Your task to perform on an android device: Go to internet settings Image 0: 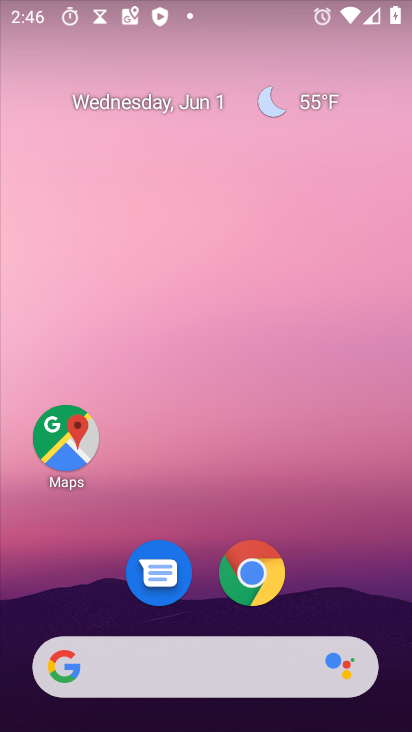
Step 0: drag from (342, 512) to (257, 41)
Your task to perform on an android device: Go to internet settings Image 1: 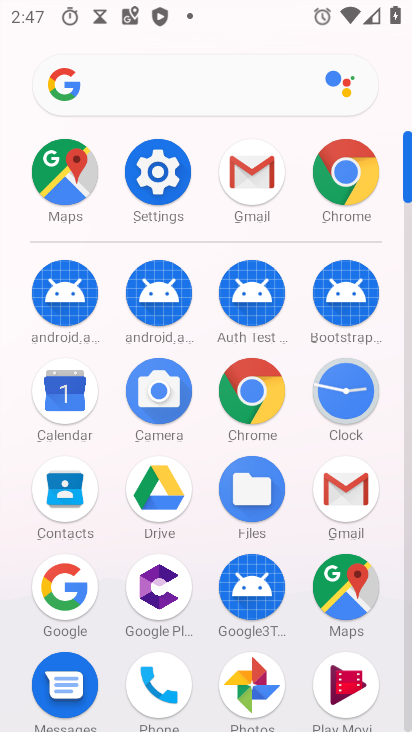
Step 1: click (133, 174)
Your task to perform on an android device: Go to internet settings Image 2: 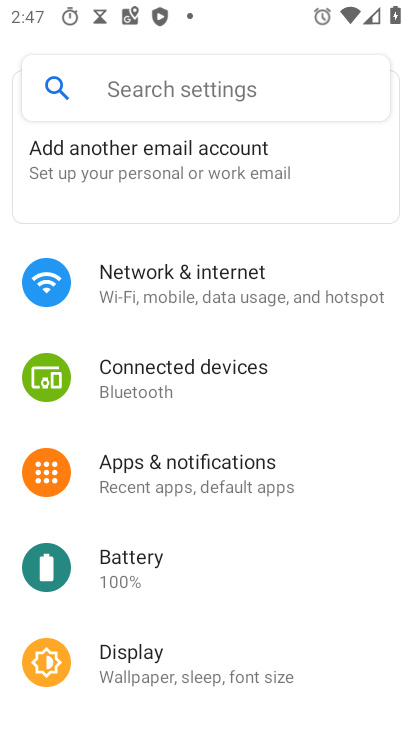
Step 2: click (164, 274)
Your task to perform on an android device: Go to internet settings Image 3: 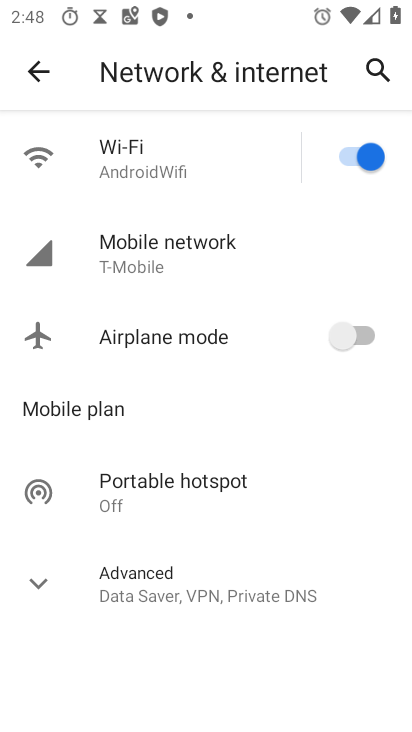
Step 3: task complete